Your task to perform on an android device: toggle wifi Image 0: 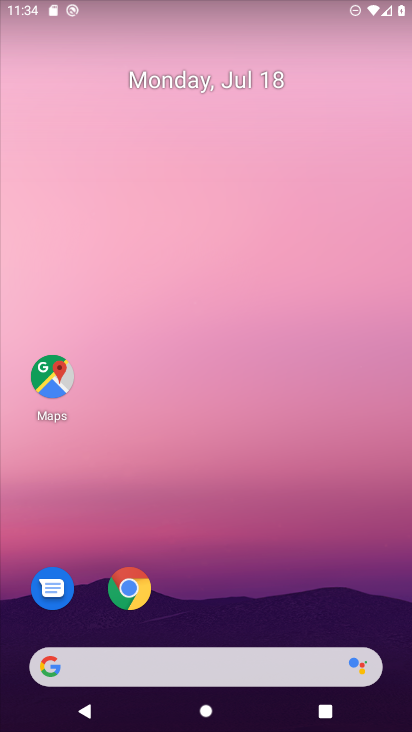
Step 0: drag from (172, 655) to (178, 268)
Your task to perform on an android device: toggle wifi Image 1: 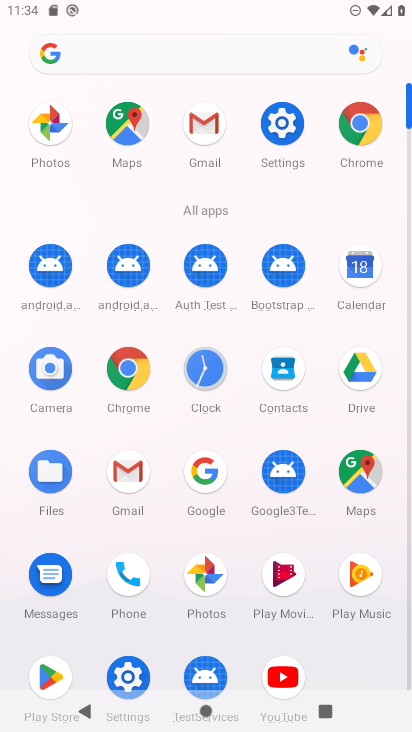
Step 1: click (277, 128)
Your task to perform on an android device: toggle wifi Image 2: 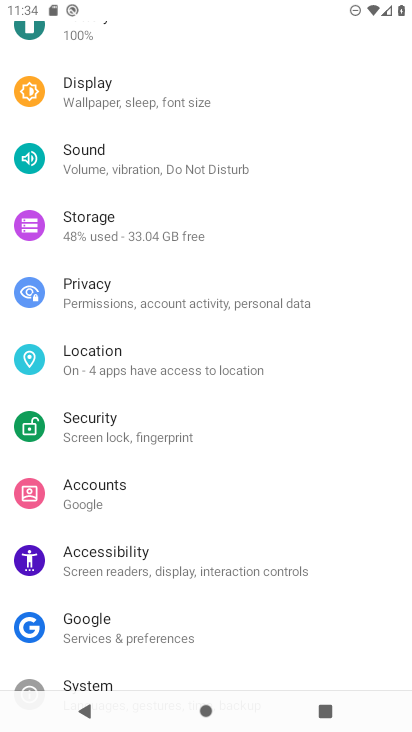
Step 2: drag from (177, 104) to (228, 515)
Your task to perform on an android device: toggle wifi Image 3: 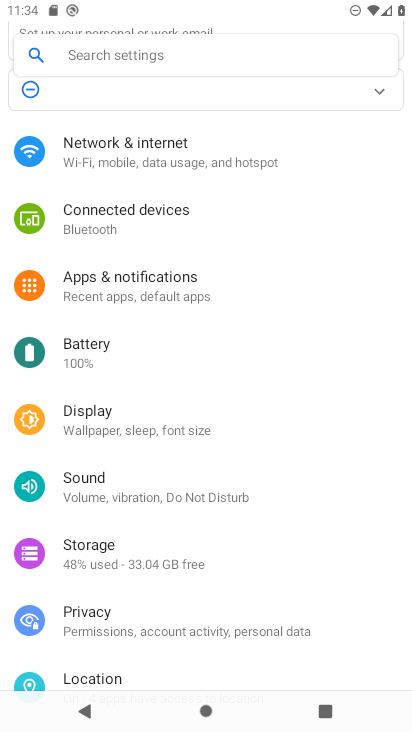
Step 3: click (123, 154)
Your task to perform on an android device: toggle wifi Image 4: 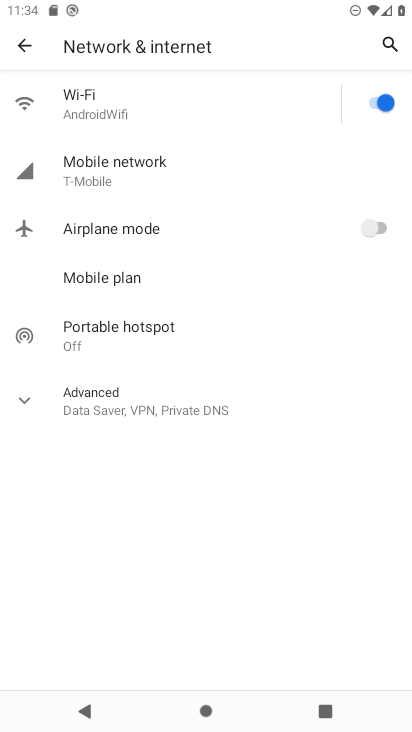
Step 4: click (378, 101)
Your task to perform on an android device: toggle wifi Image 5: 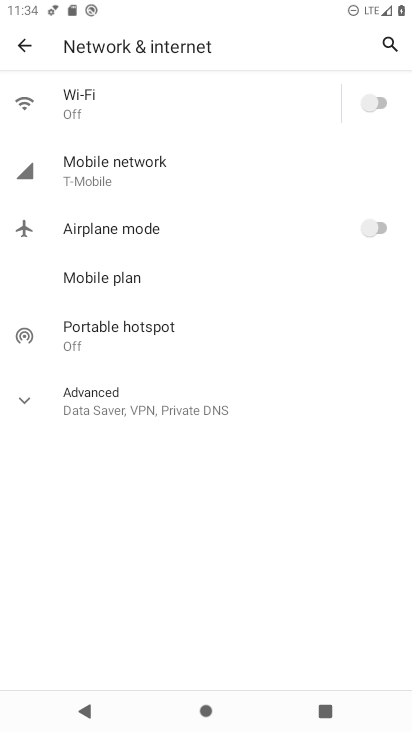
Step 5: task complete